Your task to perform on an android device: Open sound settings Image 0: 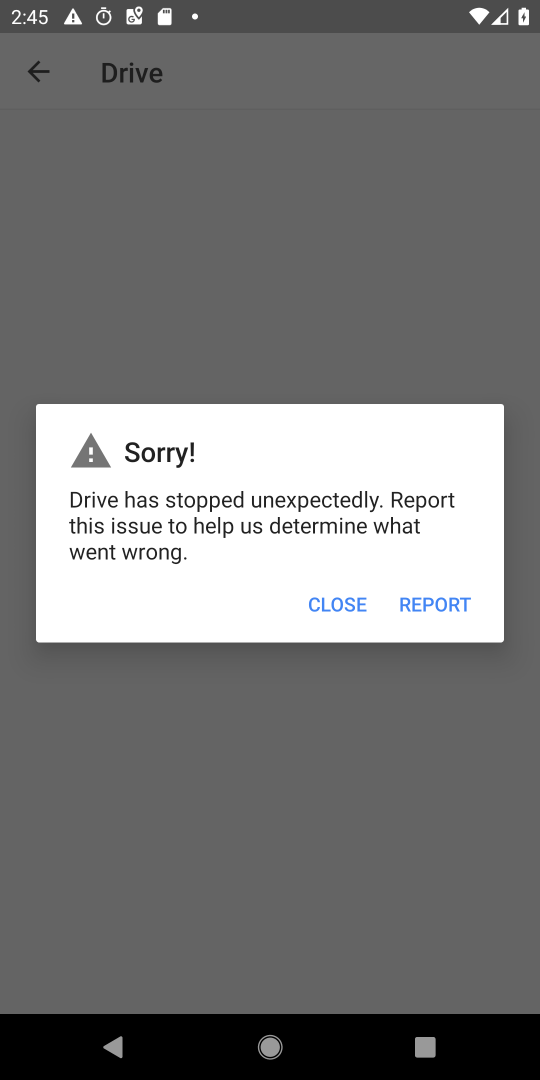
Step 0: press back button
Your task to perform on an android device: Open sound settings Image 1: 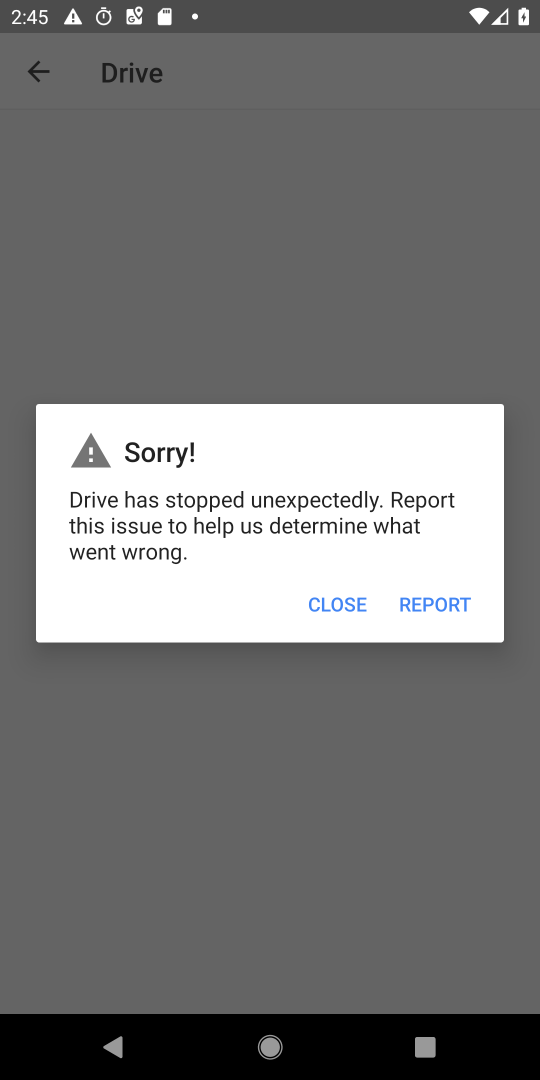
Step 1: drag from (517, 934) to (206, 25)
Your task to perform on an android device: Open sound settings Image 2: 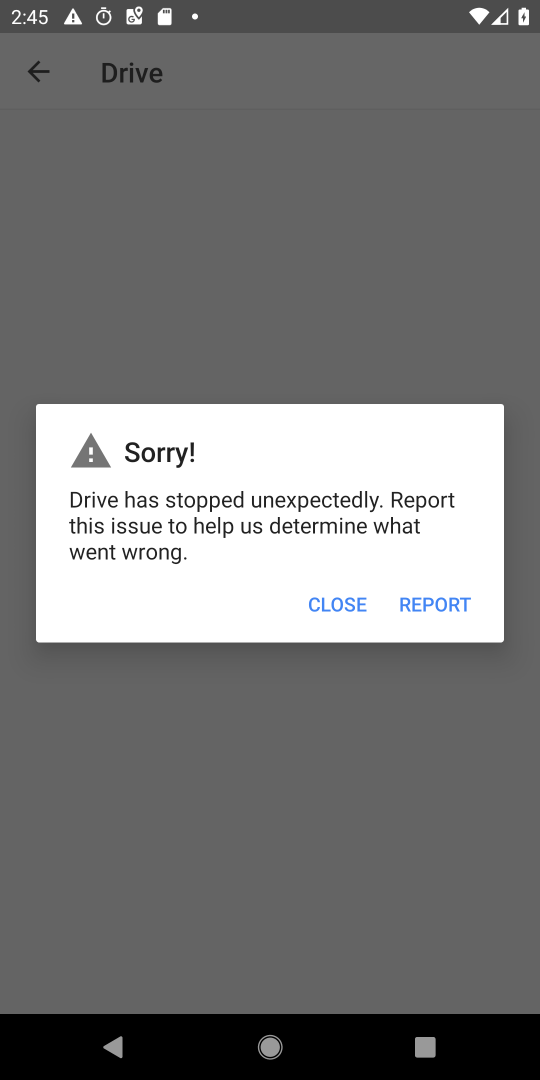
Step 2: press home button
Your task to perform on an android device: Open sound settings Image 3: 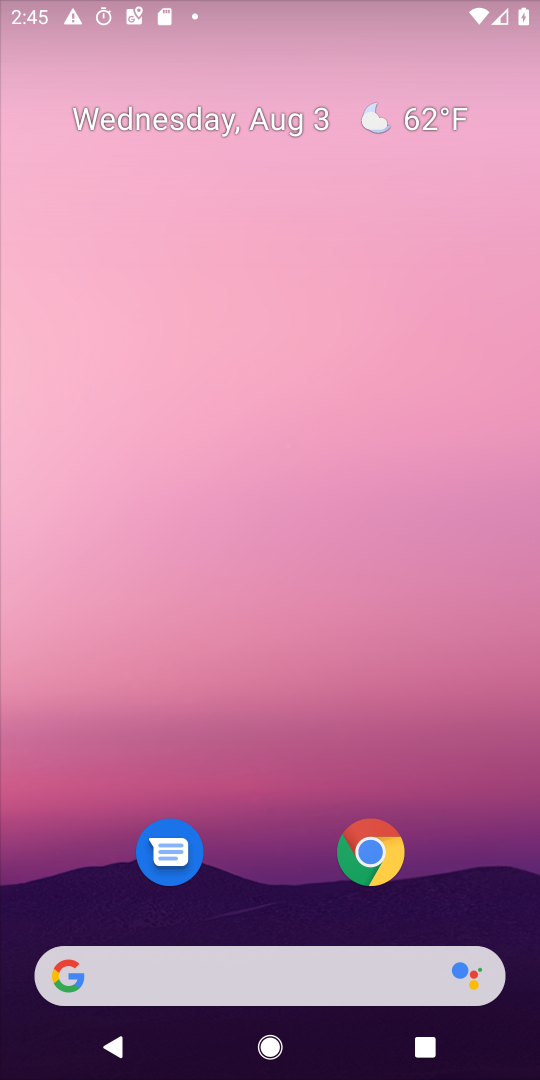
Step 3: drag from (518, 897) to (155, 71)
Your task to perform on an android device: Open sound settings Image 4: 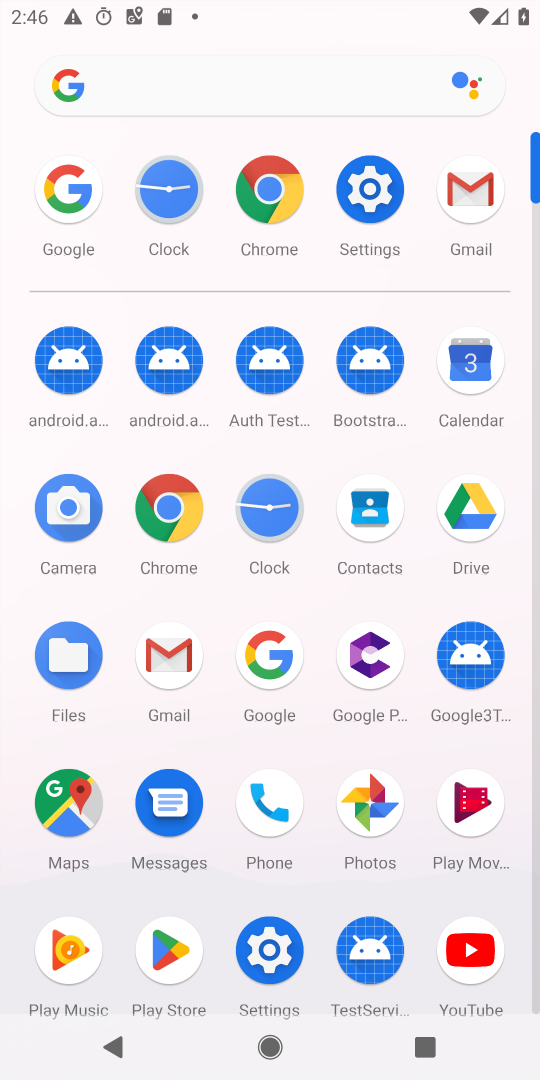
Step 4: click (266, 973)
Your task to perform on an android device: Open sound settings Image 5: 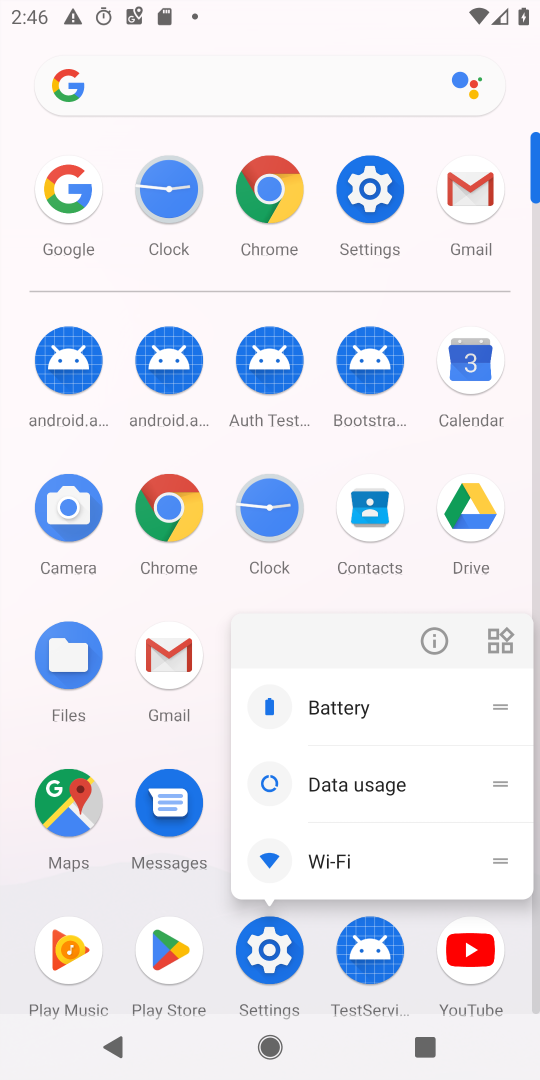
Step 5: click (266, 973)
Your task to perform on an android device: Open sound settings Image 6: 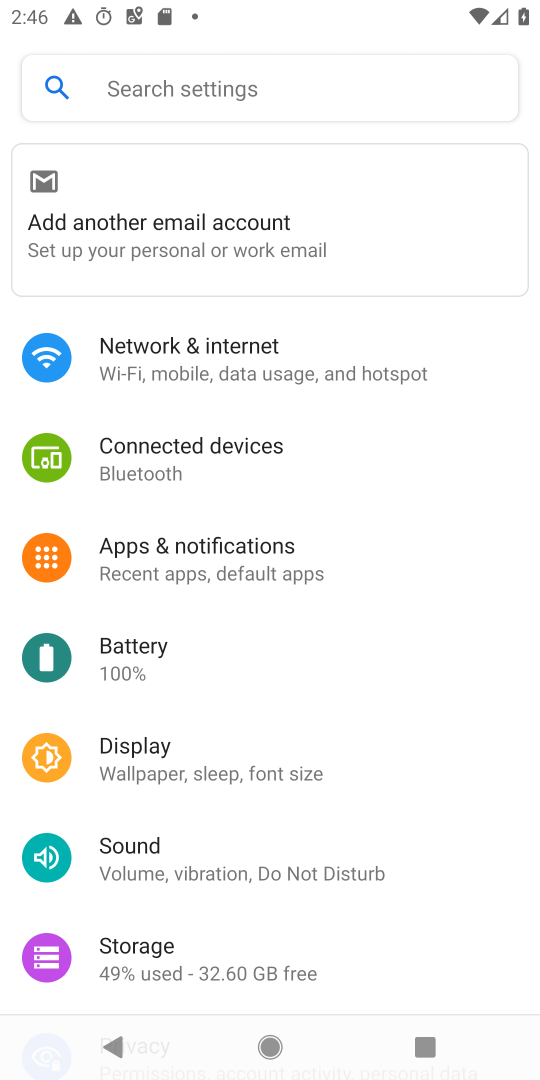
Step 6: click (166, 860)
Your task to perform on an android device: Open sound settings Image 7: 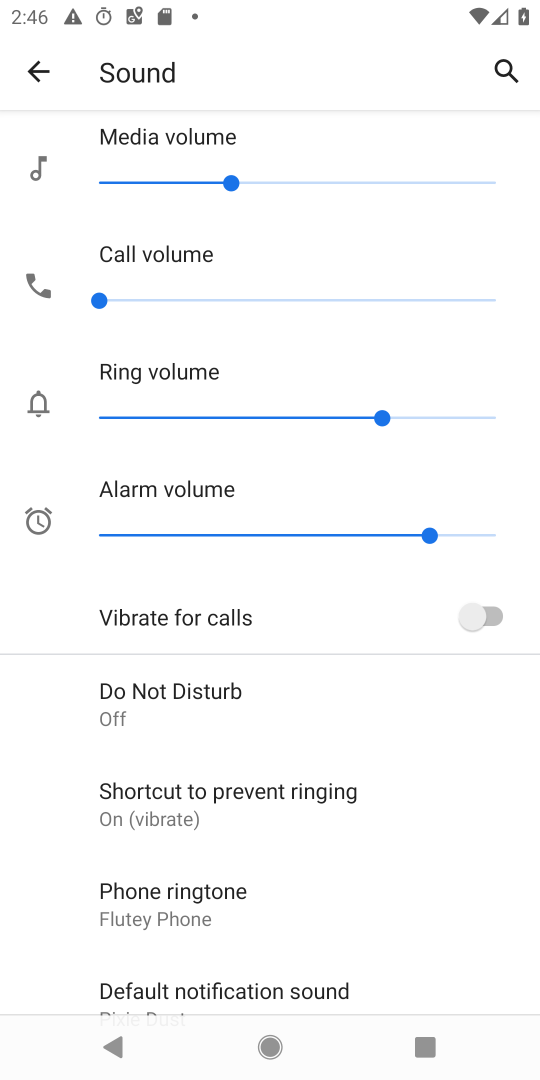
Step 7: task complete